Your task to perform on an android device: change the upload size in google photos Image 0: 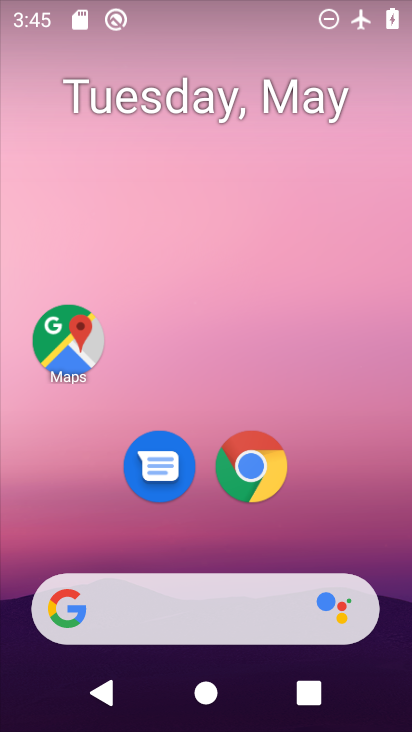
Step 0: drag from (408, 482) to (410, 118)
Your task to perform on an android device: change the upload size in google photos Image 1: 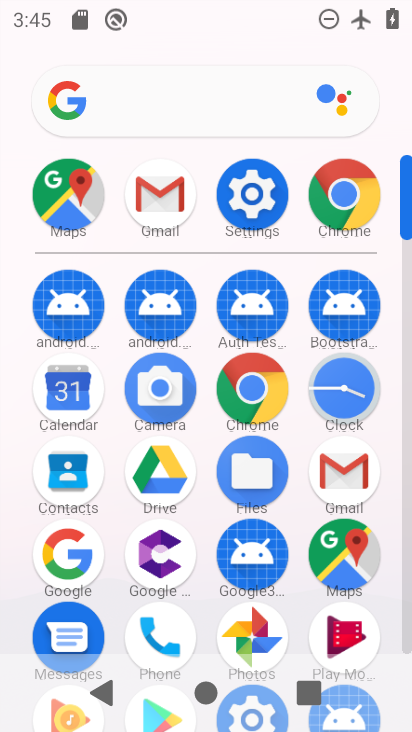
Step 1: drag from (356, 482) to (346, 119)
Your task to perform on an android device: change the upload size in google photos Image 2: 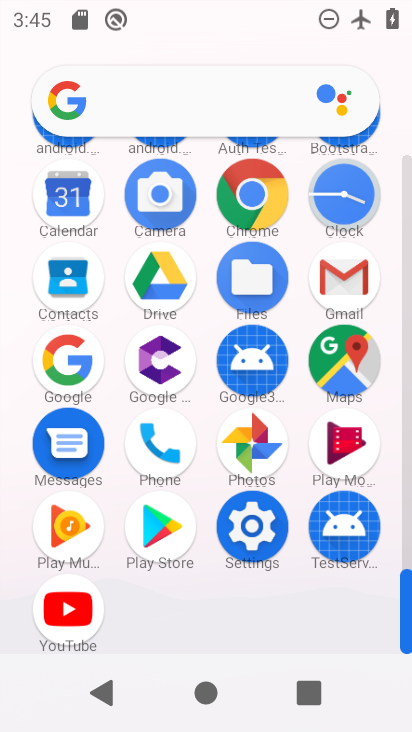
Step 2: click (287, 425)
Your task to perform on an android device: change the upload size in google photos Image 3: 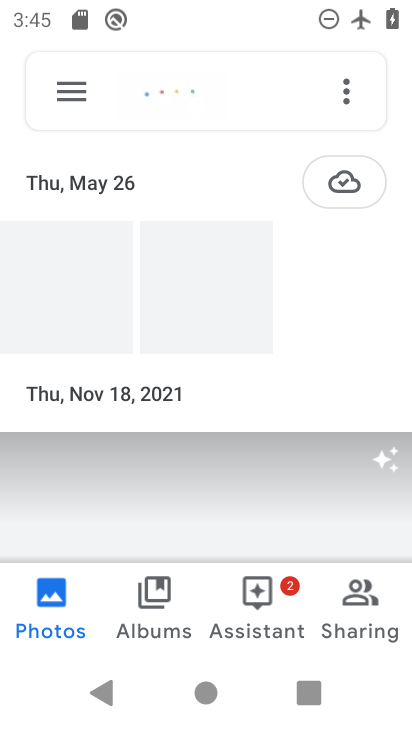
Step 3: click (104, 91)
Your task to perform on an android device: change the upload size in google photos Image 4: 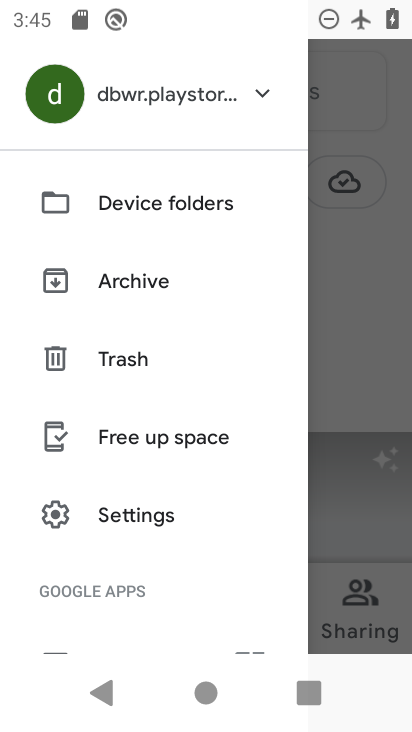
Step 4: click (133, 503)
Your task to perform on an android device: change the upload size in google photos Image 5: 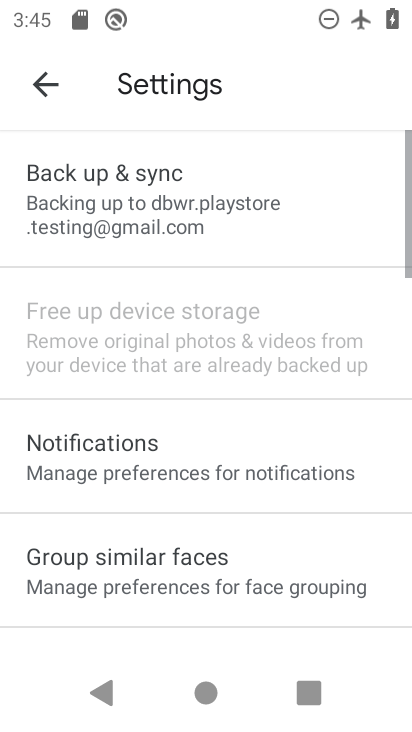
Step 5: click (169, 204)
Your task to perform on an android device: change the upload size in google photos Image 6: 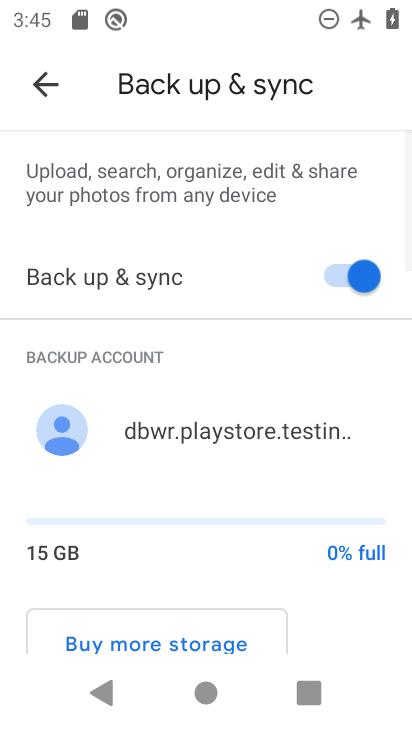
Step 6: drag from (174, 604) to (242, 268)
Your task to perform on an android device: change the upload size in google photos Image 7: 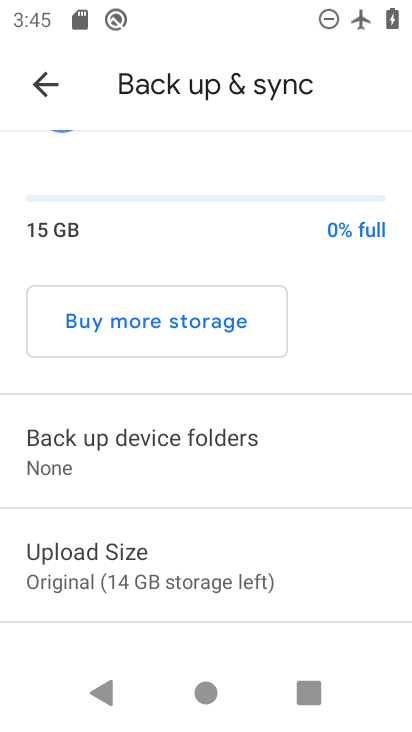
Step 7: click (242, 554)
Your task to perform on an android device: change the upload size in google photos Image 8: 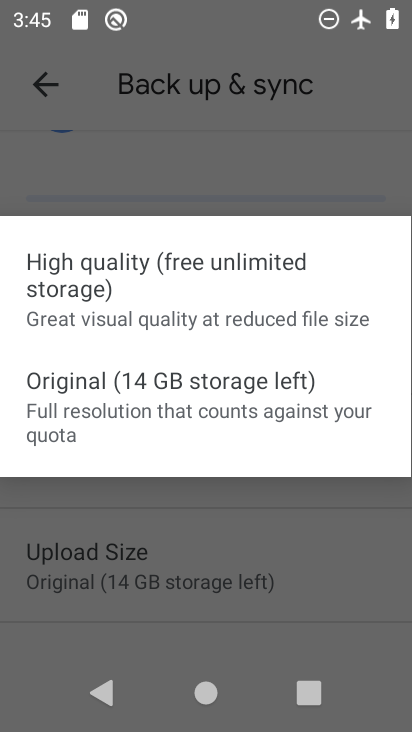
Step 8: click (201, 412)
Your task to perform on an android device: change the upload size in google photos Image 9: 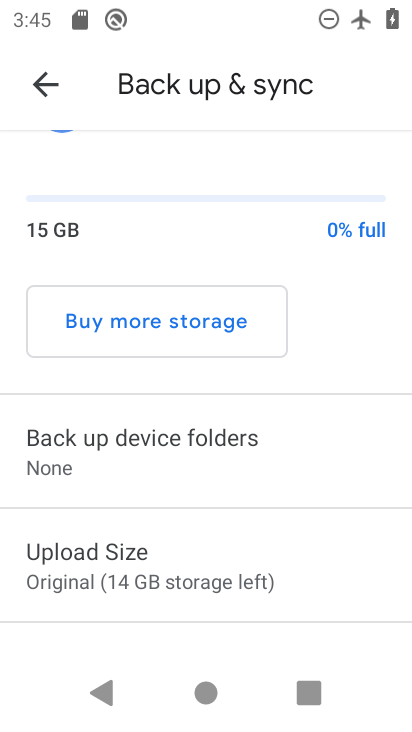
Step 9: click (166, 541)
Your task to perform on an android device: change the upload size in google photos Image 10: 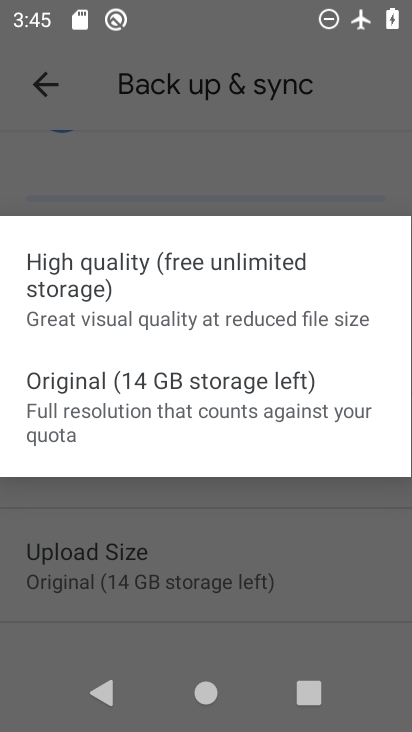
Step 10: click (173, 291)
Your task to perform on an android device: change the upload size in google photos Image 11: 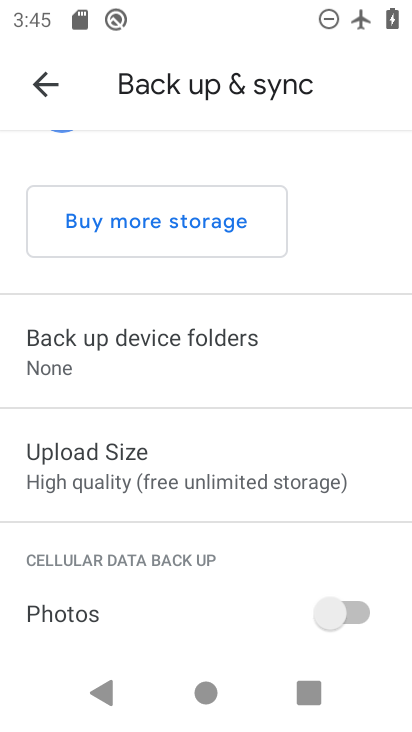
Step 11: task complete